Your task to perform on an android device: delete the emails in spam in the gmail app Image 0: 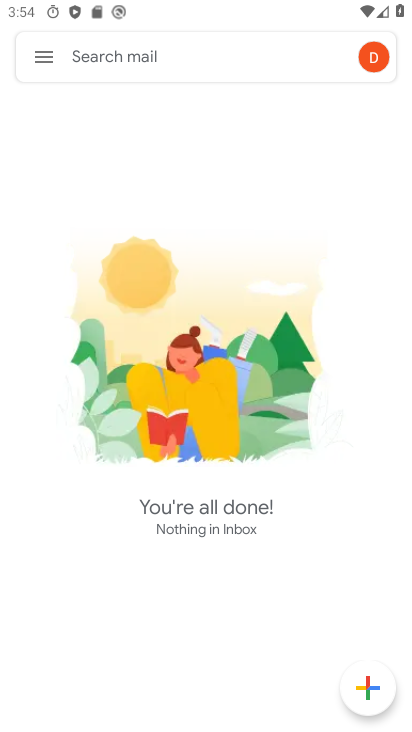
Step 0: click (40, 57)
Your task to perform on an android device: delete the emails in spam in the gmail app Image 1: 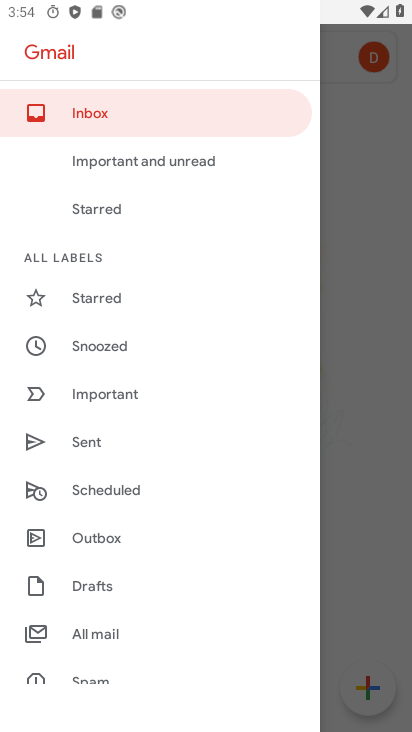
Step 1: drag from (141, 696) to (184, 345)
Your task to perform on an android device: delete the emails in spam in the gmail app Image 2: 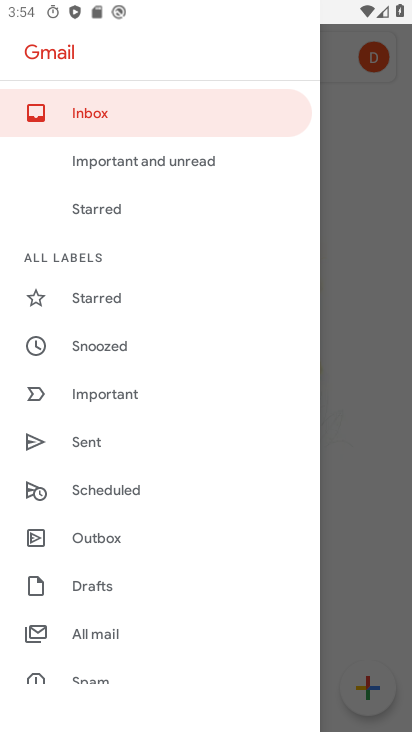
Step 2: drag from (146, 671) to (141, 184)
Your task to perform on an android device: delete the emails in spam in the gmail app Image 3: 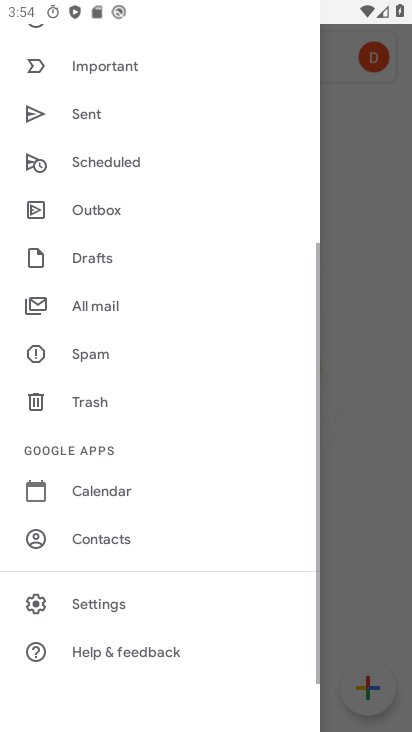
Step 3: click (101, 362)
Your task to perform on an android device: delete the emails in spam in the gmail app Image 4: 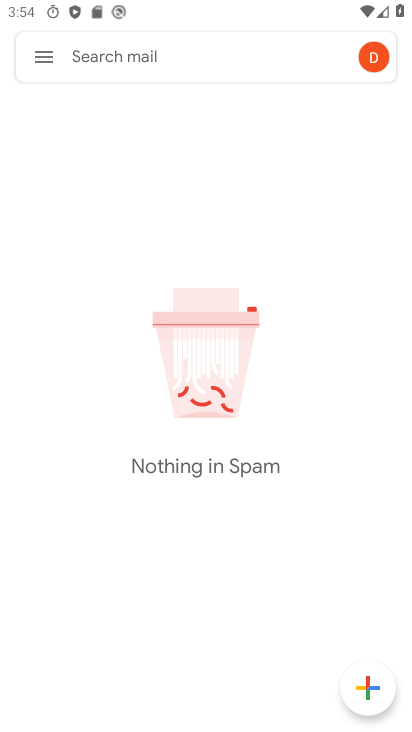
Step 4: task complete